Your task to perform on an android device: find which apps use the phone's location Image 0: 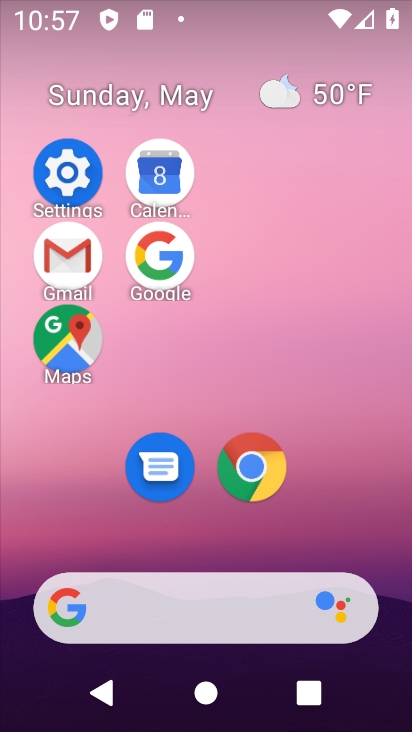
Step 0: click (70, 172)
Your task to perform on an android device: find which apps use the phone's location Image 1: 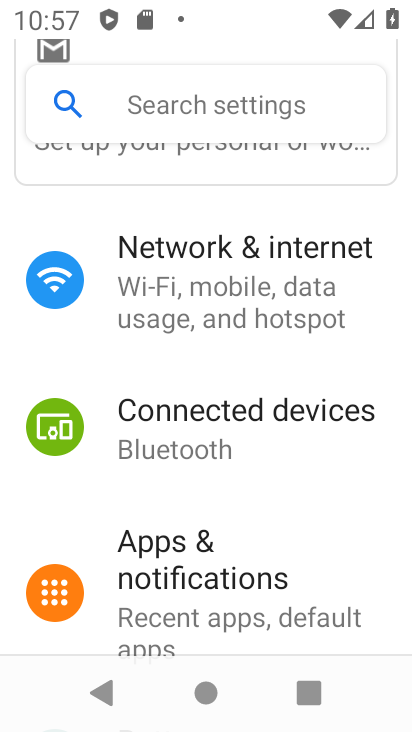
Step 1: drag from (332, 533) to (310, 104)
Your task to perform on an android device: find which apps use the phone's location Image 2: 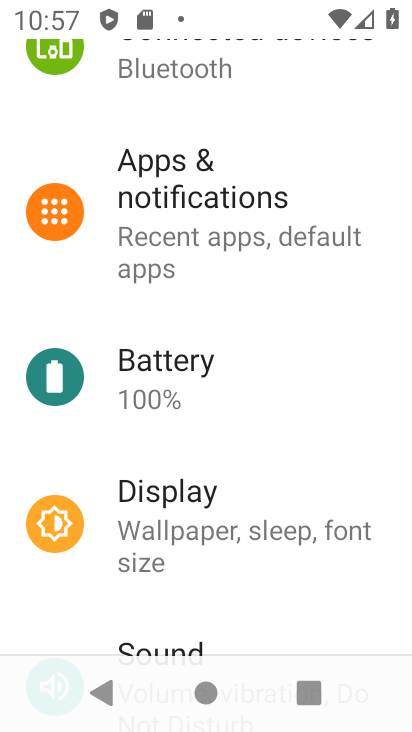
Step 2: drag from (305, 441) to (321, 103)
Your task to perform on an android device: find which apps use the phone's location Image 3: 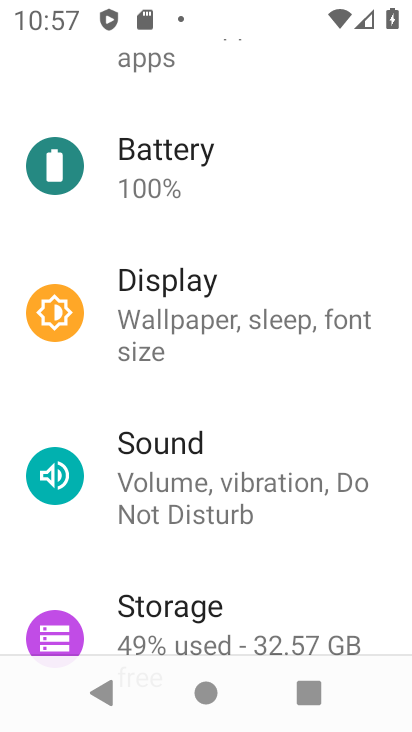
Step 3: drag from (287, 568) to (289, 211)
Your task to perform on an android device: find which apps use the phone's location Image 4: 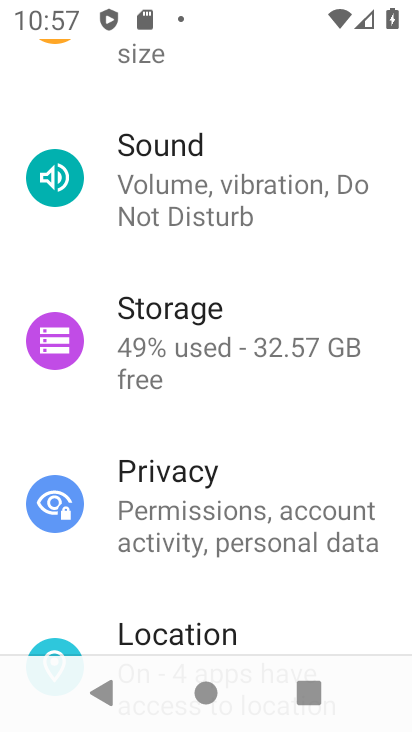
Step 4: click (263, 620)
Your task to perform on an android device: find which apps use the phone's location Image 5: 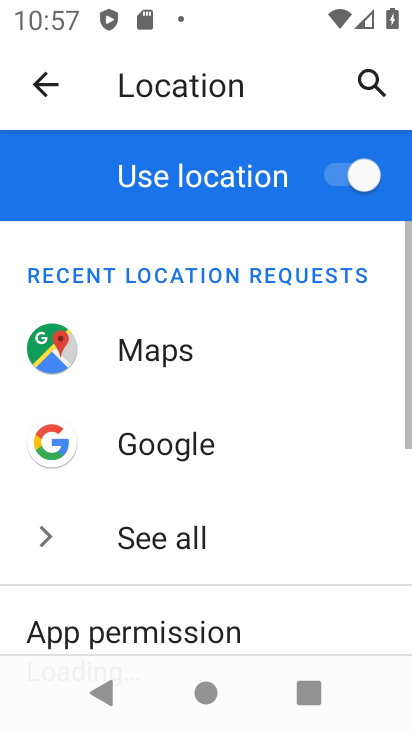
Step 5: task complete